Your task to perform on an android device: Toggle the flashlight Image 0: 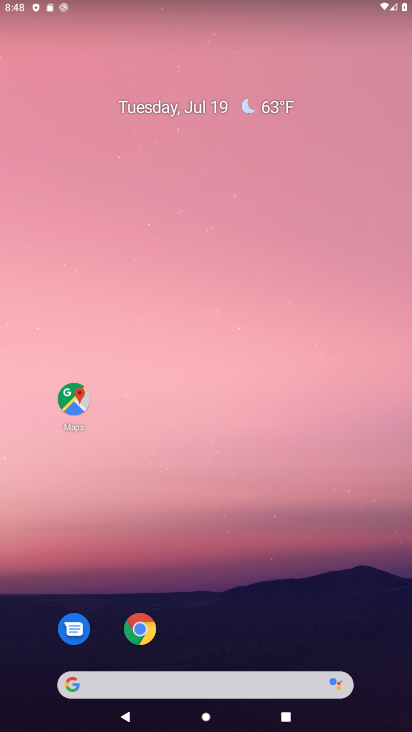
Step 0: drag from (238, 643) to (259, 21)
Your task to perform on an android device: Toggle the flashlight Image 1: 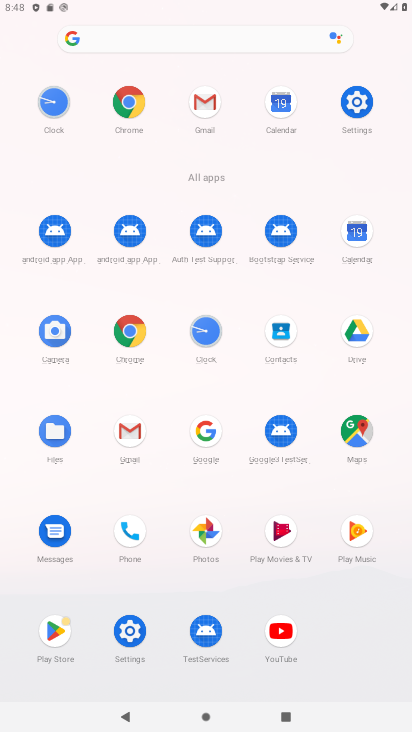
Step 1: click (360, 96)
Your task to perform on an android device: Toggle the flashlight Image 2: 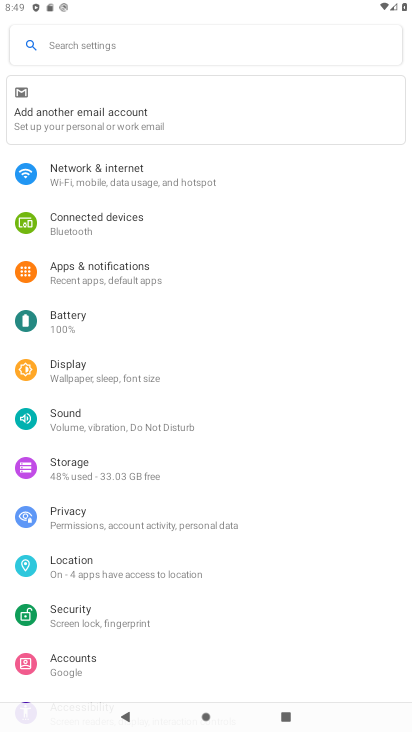
Step 2: click (108, 43)
Your task to perform on an android device: Toggle the flashlight Image 3: 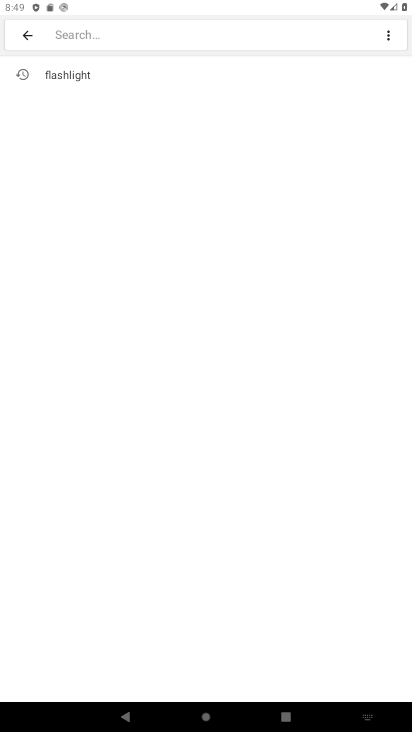
Step 3: type "f"
Your task to perform on an android device: Toggle the flashlight Image 4: 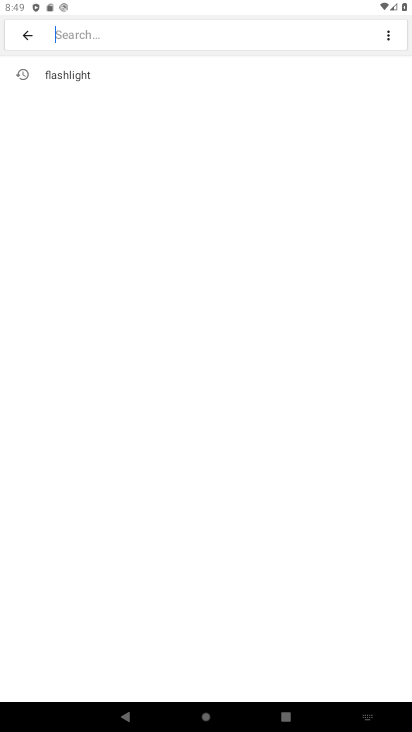
Step 4: click (84, 71)
Your task to perform on an android device: Toggle the flashlight Image 5: 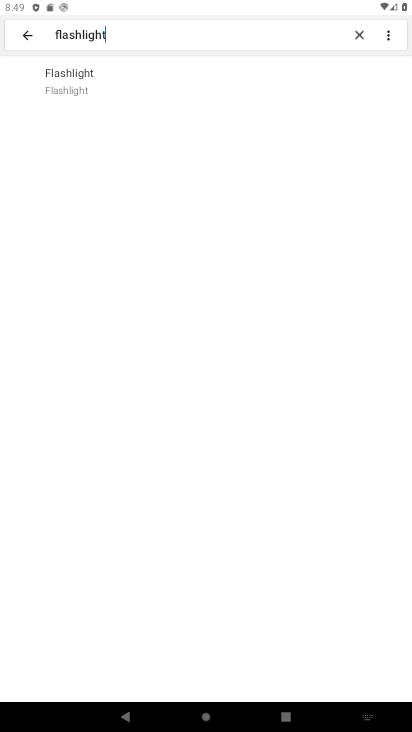
Step 5: click (86, 92)
Your task to perform on an android device: Toggle the flashlight Image 6: 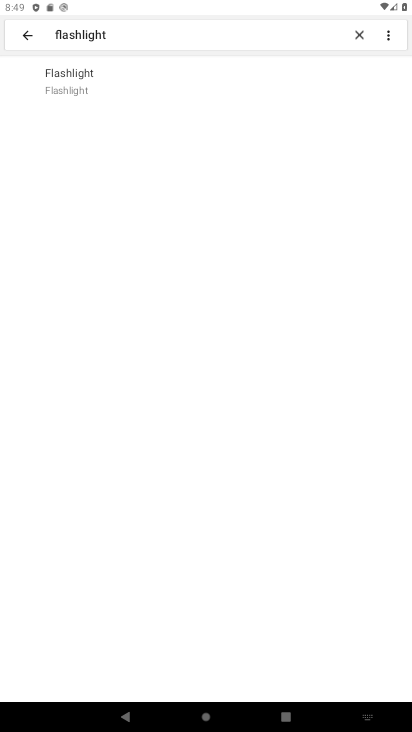
Step 6: click (101, 77)
Your task to perform on an android device: Toggle the flashlight Image 7: 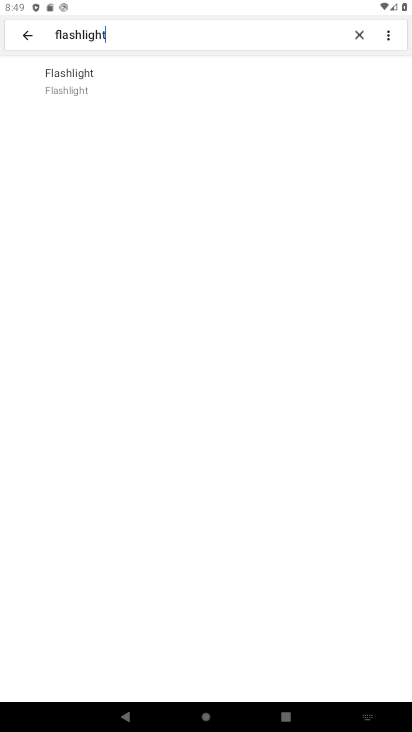
Step 7: task complete